Your task to perform on an android device: choose inbox layout in the gmail app Image 0: 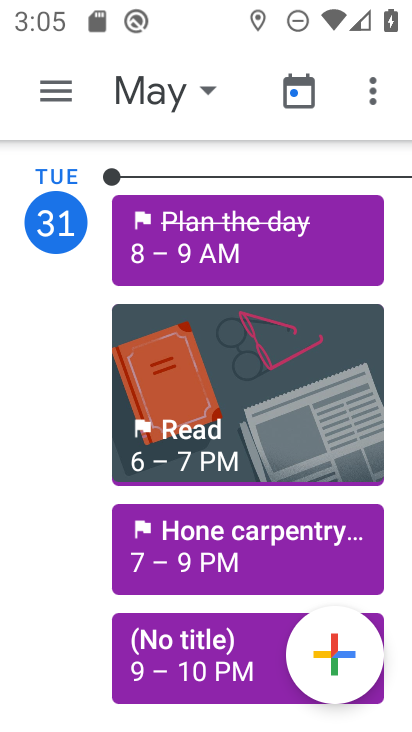
Step 0: press back button
Your task to perform on an android device: choose inbox layout in the gmail app Image 1: 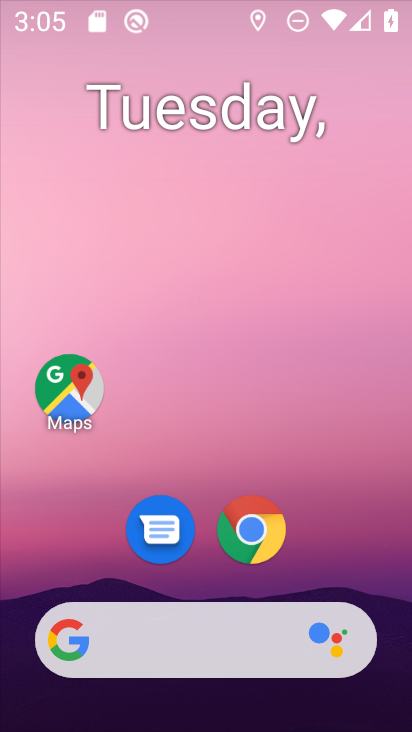
Step 1: press back button
Your task to perform on an android device: choose inbox layout in the gmail app Image 2: 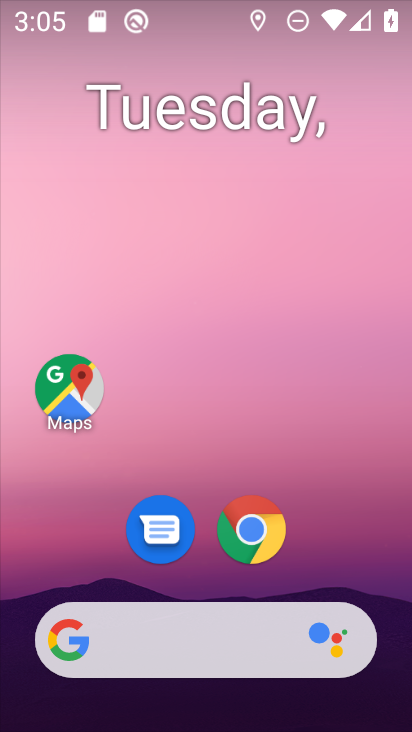
Step 2: drag from (292, 448) to (303, 58)
Your task to perform on an android device: choose inbox layout in the gmail app Image 3: 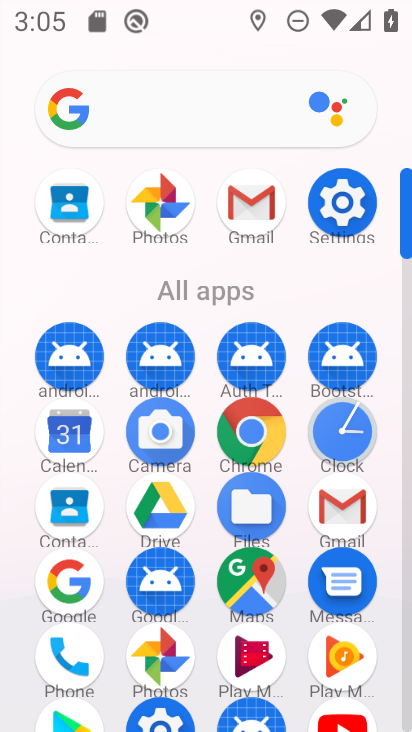
Step 3: click (256, 211)
Your task to perform on an android device: choose inbox layout in the gmail app Image 4: 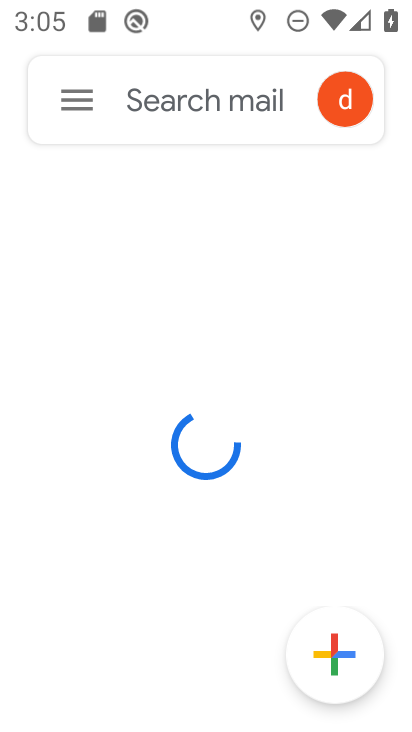
Step 4: click (74, 107)
Your task to perform on an android device: choose inbox layout in the gmail app Image 5: 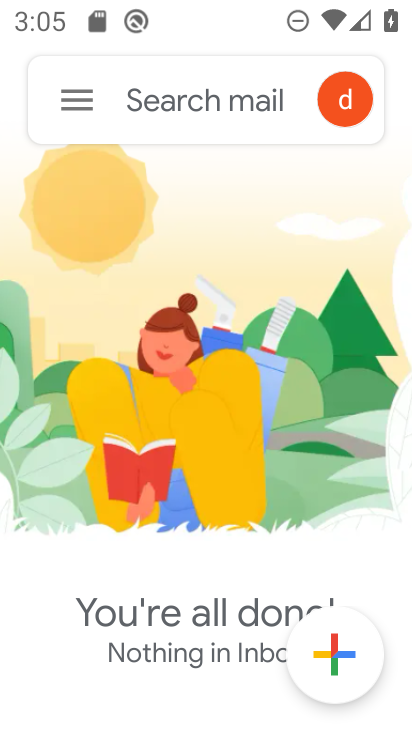
Step 5: click (68, 97)
Your task to perform on an android device: choose inbox layout in the gmail app Image 6: 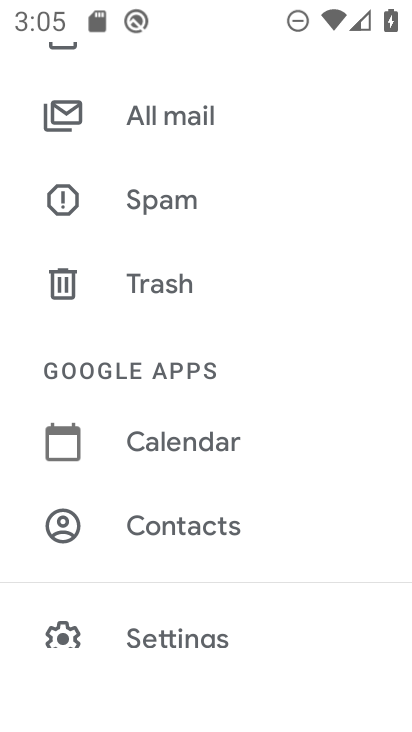
Step 6: click (197, 641)
Your task to perform on an android device: choose inbox layout in the gmail app Image 7: 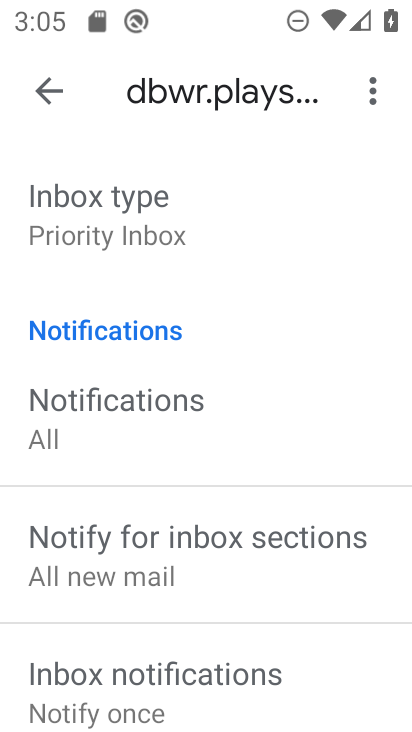
Step 7: click (114, 218)
Your task to perform on an android device: choose inbox layout in the gmail app Image 8: 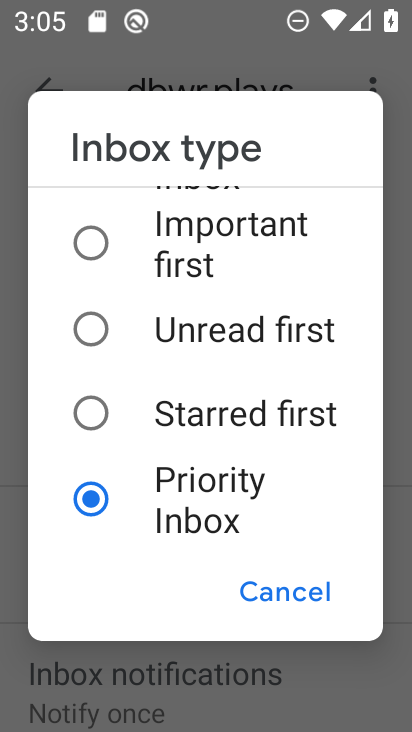
Step 8: drag from (194, 238) to (243, 588)
Your task to perform on an android device: choose inbox layout in the gmail app Image 9: 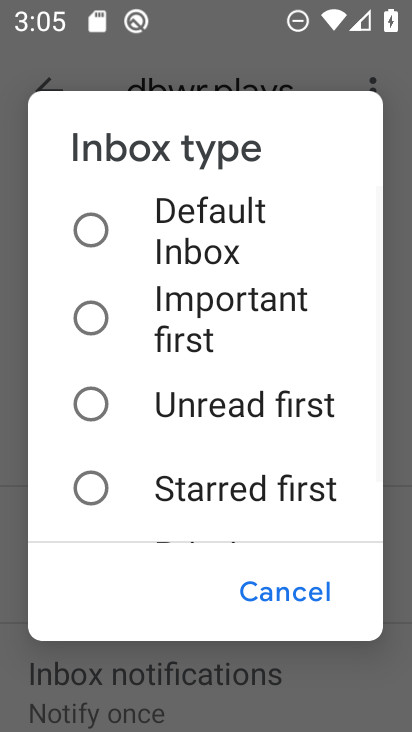
Step 9: click (103, 229)
Your task to perform on an android device: choose inbox layout in the gmail app Image 10: 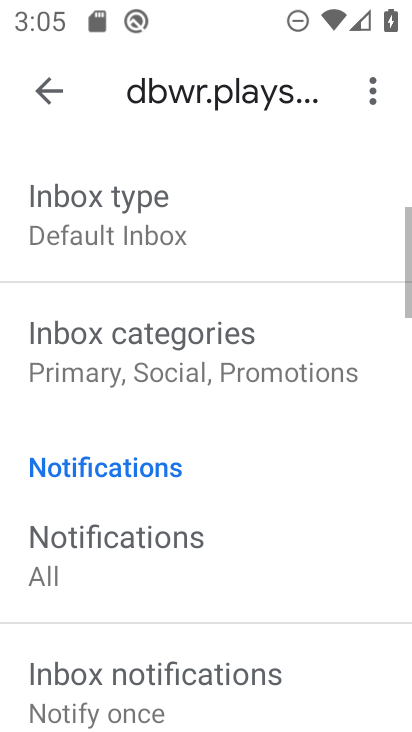
Step 10: task complete